Your task to perform on an android device: Show me popular videos on Youtube Image 0: 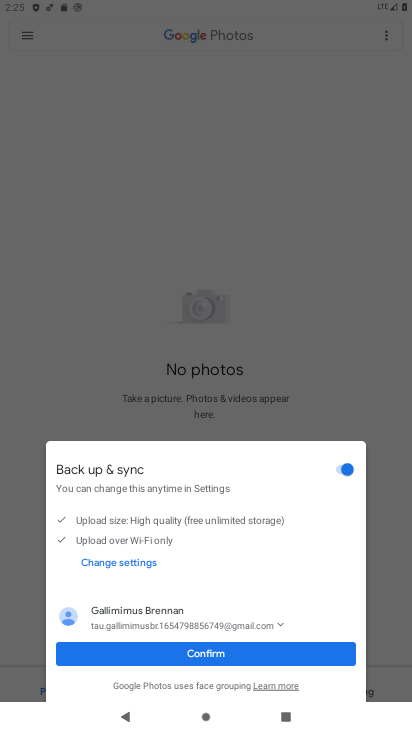
Step 0: press home button
Your task to perform on an android device: Show me popular videos on Youtube Image 1: 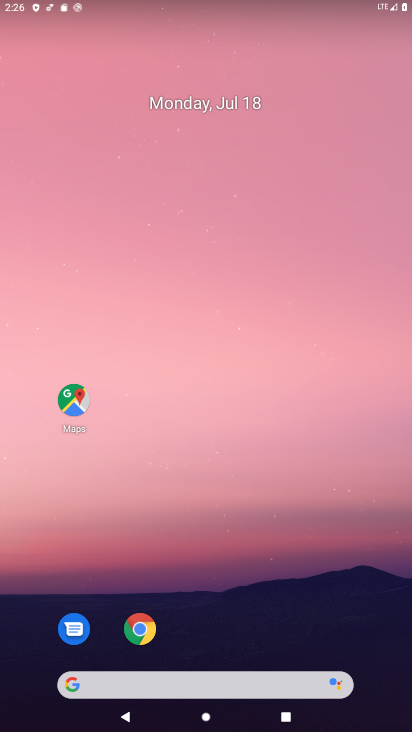
Step 1: drag from (206, 664) to (262, 220)
Your task to perform on an android device: Show me popular videos on Youtube Image 2: 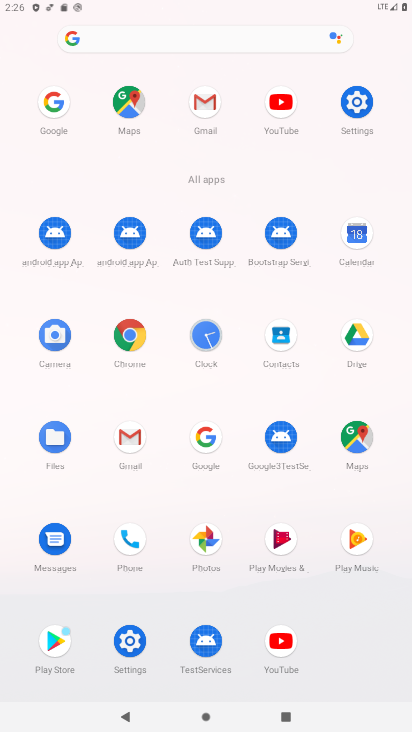
Step 2: click (266, 638)
Your task to perform on an android device: Show me popular videos on Youtube Image 3: 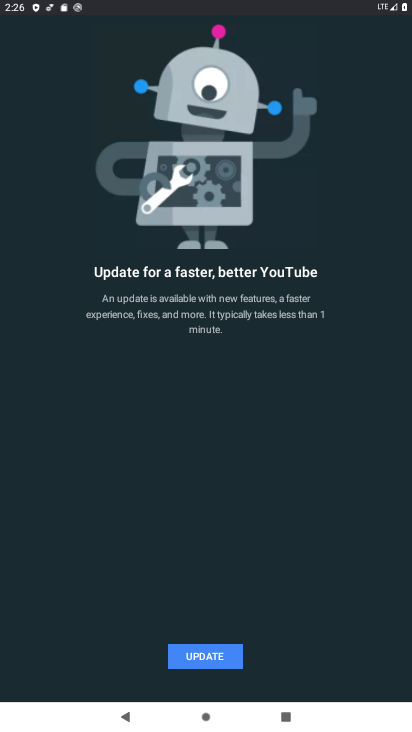
Step 3: click (207, 656)
Your task to perform on an android device: Show me popular videos on Youtube Image 4: 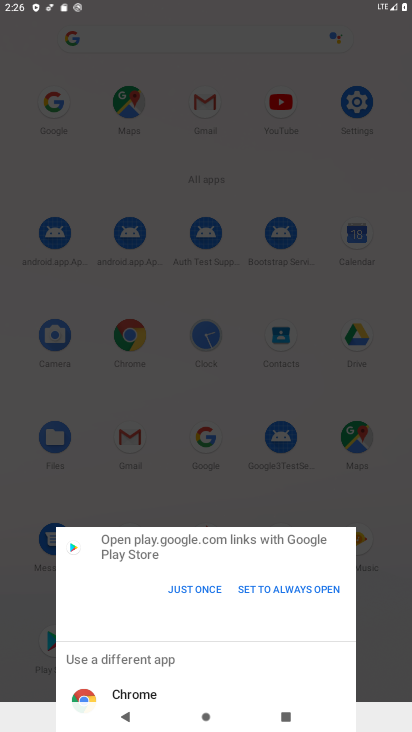
Step 4: click (169, 583)
Your task to perform on an android device: Show me popular videos on Youtube Image 5: 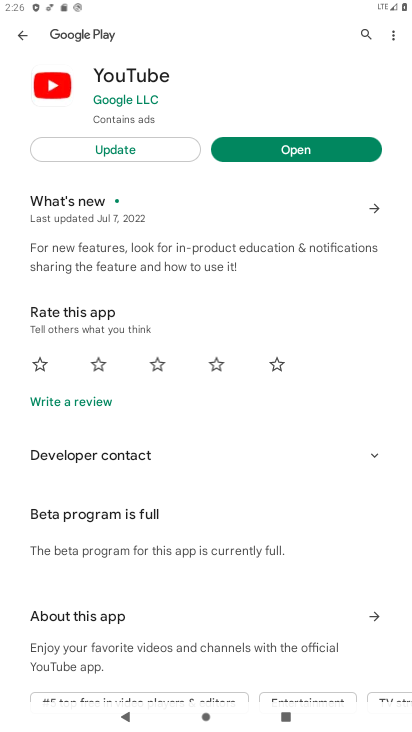
Step 5: click (134, 151)
Your task to perform on an android device: Show me popular videos on Youtube Image 6: 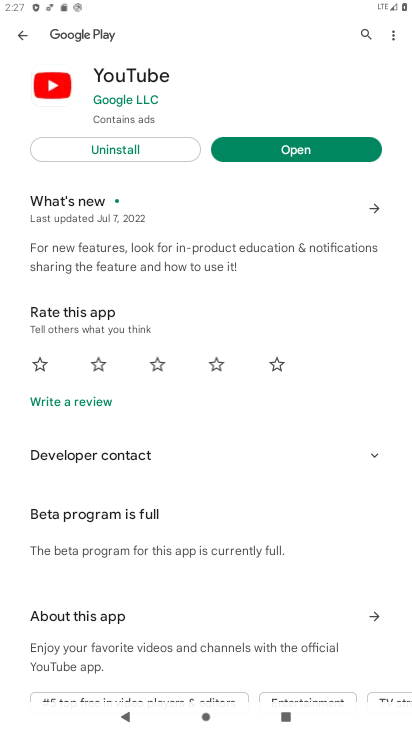
Step 6: click (299, 142)
Your task to perform on an android device: Show me popular videos on Youtube Image 7: 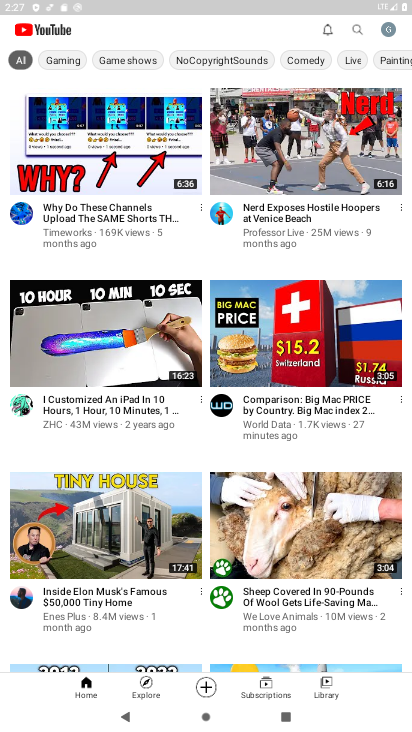
Step 7: task complete